Your task to perform on an android device: turn off javascript in the chrome app Image 0: 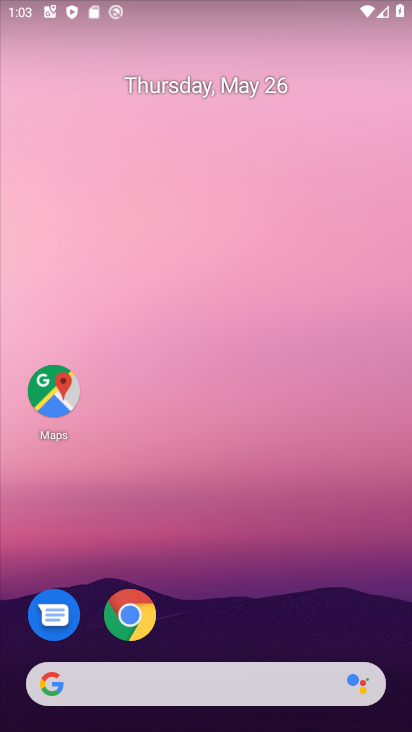
Step 0: click (129, 623)
Your task to perform on an android device: turn off javascript in the chrome app Image 1: 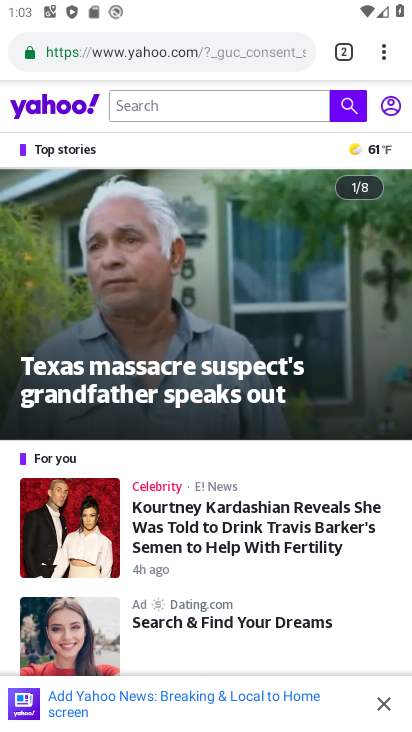
Step 1: drag from (381, 61) to (221, 635)
Your task to perform on an android device: turn off javascript in the chrome app Image 2: 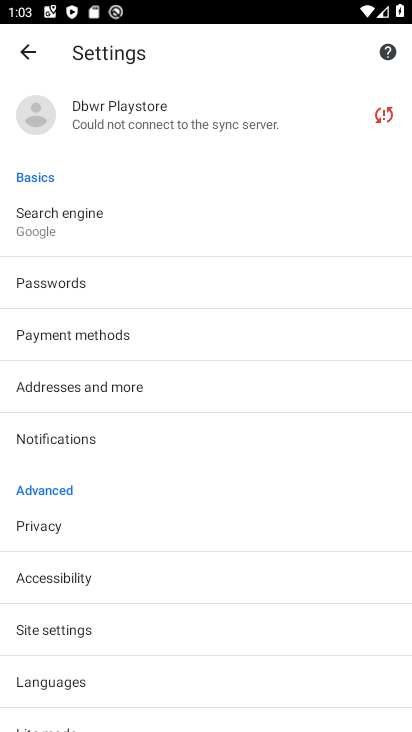
Step 2: drag from (86, 669) to (164, 307)
Your task to perform on an android device: turn off javascript in the chrome app Image 3: 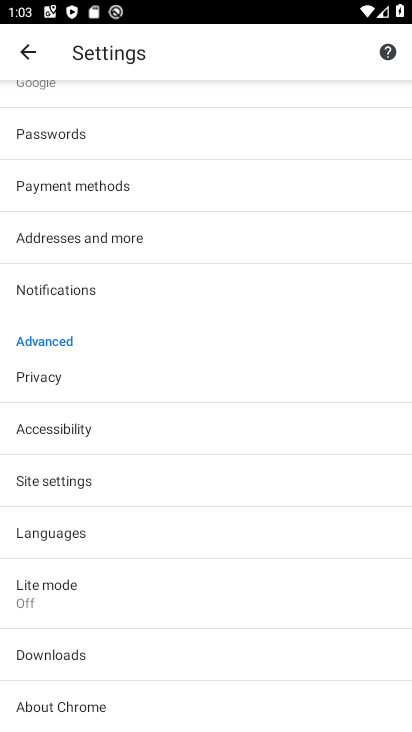
Step 3: click (102, 475)
Your task to perform on an android device: turn off javascript in the chrome app Image 4: 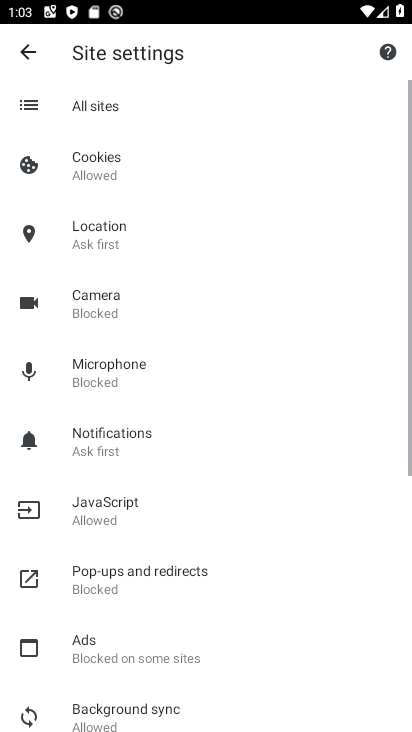
Step 4: click (107, 516)
Your task to perform on an android device: turn off javascript in the chrome app Image 5: 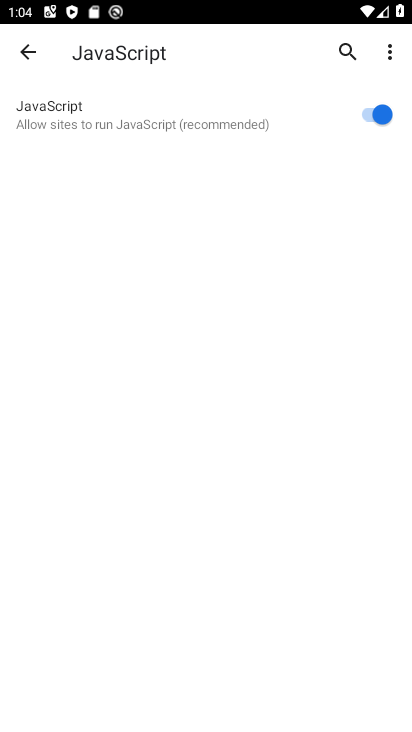
Step 5: click (370, 113)
Your task to perform on an android device: turn off javascript in the chrome app Image 6: 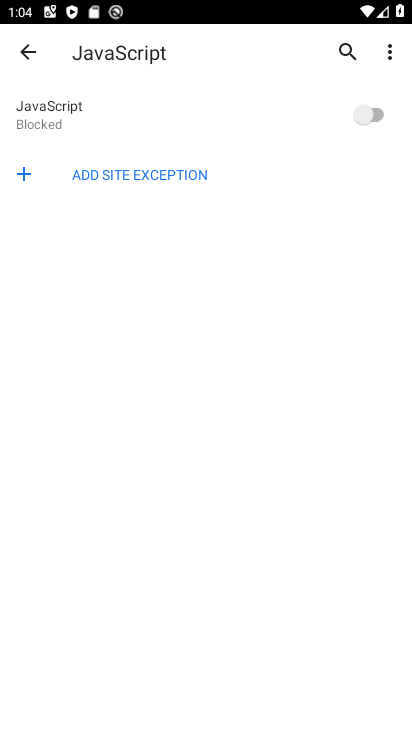
Step 6: task complete